Your task to perform on an android device: check battery use Image 0: 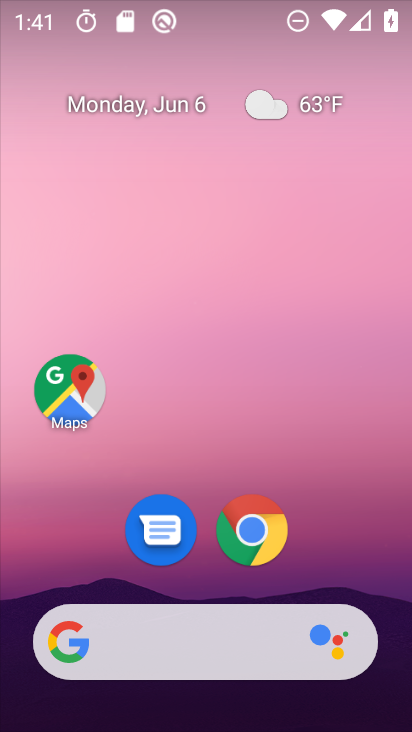
Step 0: drag from (295, 355) to (243, 62)
Your task to perform on an android device: check battery use Image 1: 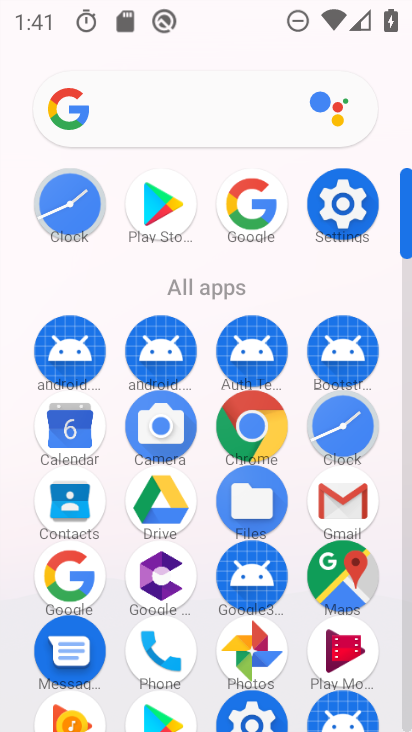
Step 1: click (340, 202)
Your task to perform on an android device: check battery use Image 2: 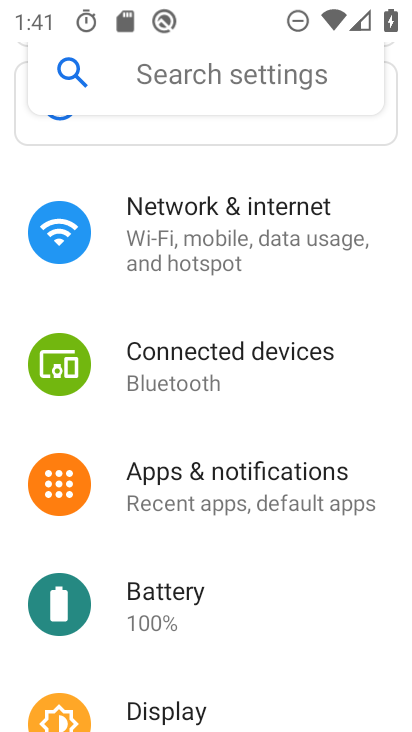
Step 2: click (167, 610)
Your task to perform on an android device: check battery use Image 3: 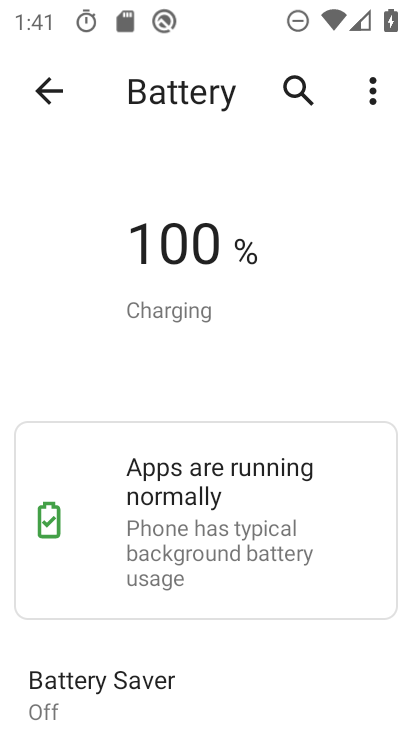
Step 3: click (371, 84)
Your task to perform on an android device: check battery use Image 4: 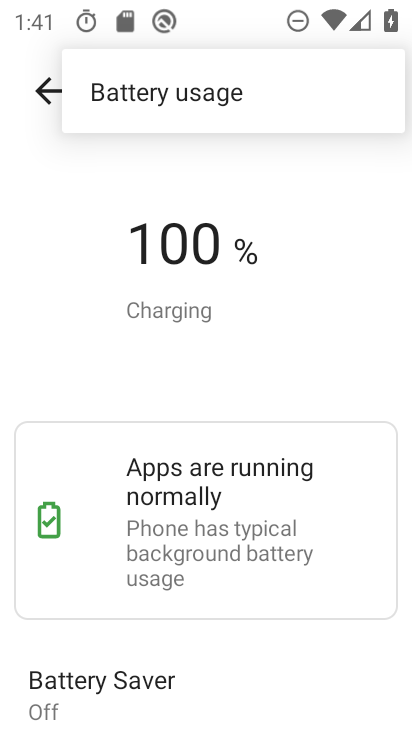
Step 4: click (265, 100)
Your task to perform on an android device: check battery use Image 5: 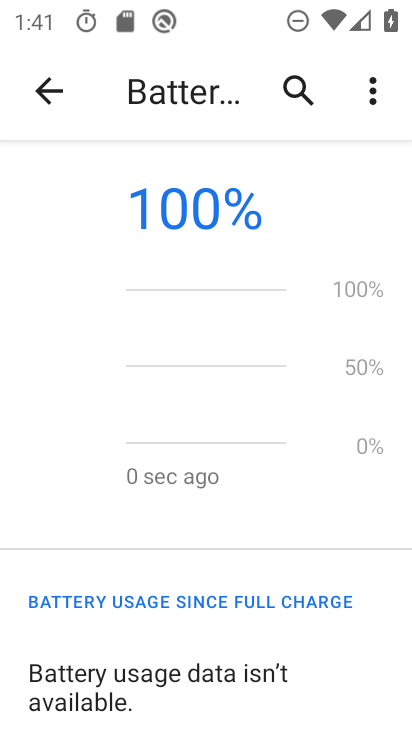
Step 5: task complete